Your task to perform on an android device: Look up the best rated pressure washer on Home Depot. Image 0: 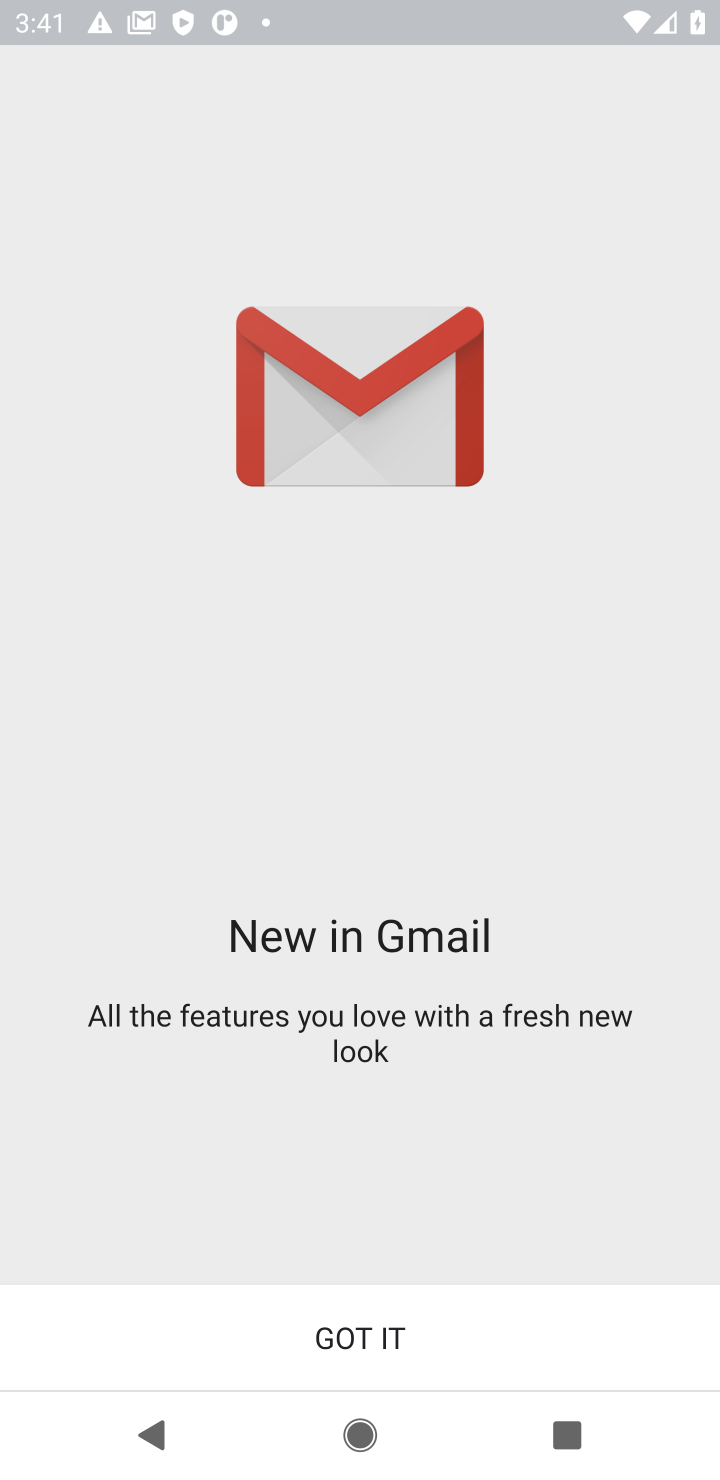
Step 0: press home button
Your task to perform on an android device: Look up the best rated pressure washer on Home Depot. Image 1: 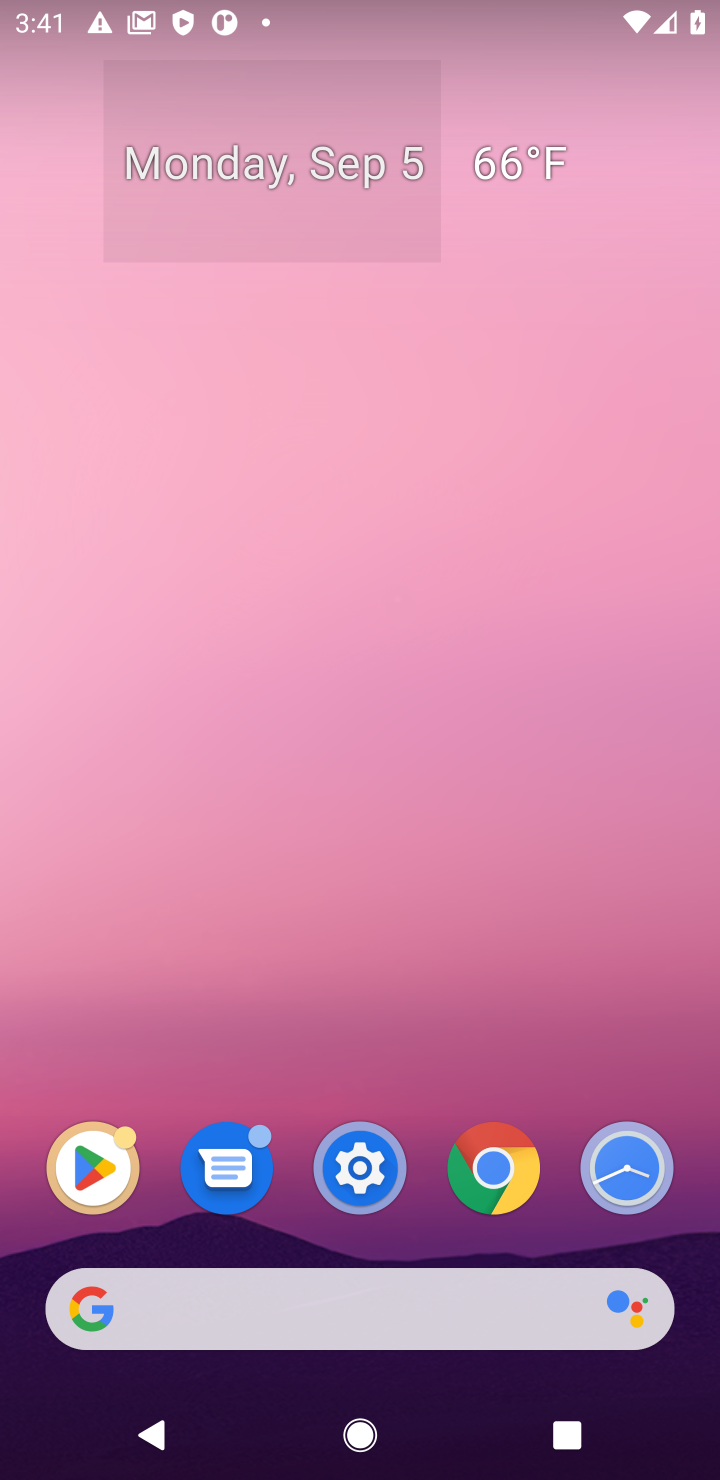
Step 1: click (182, 1303)
Your task to perform on an android device: Look up the best rated pressure washer on Home Depot. Image 2: 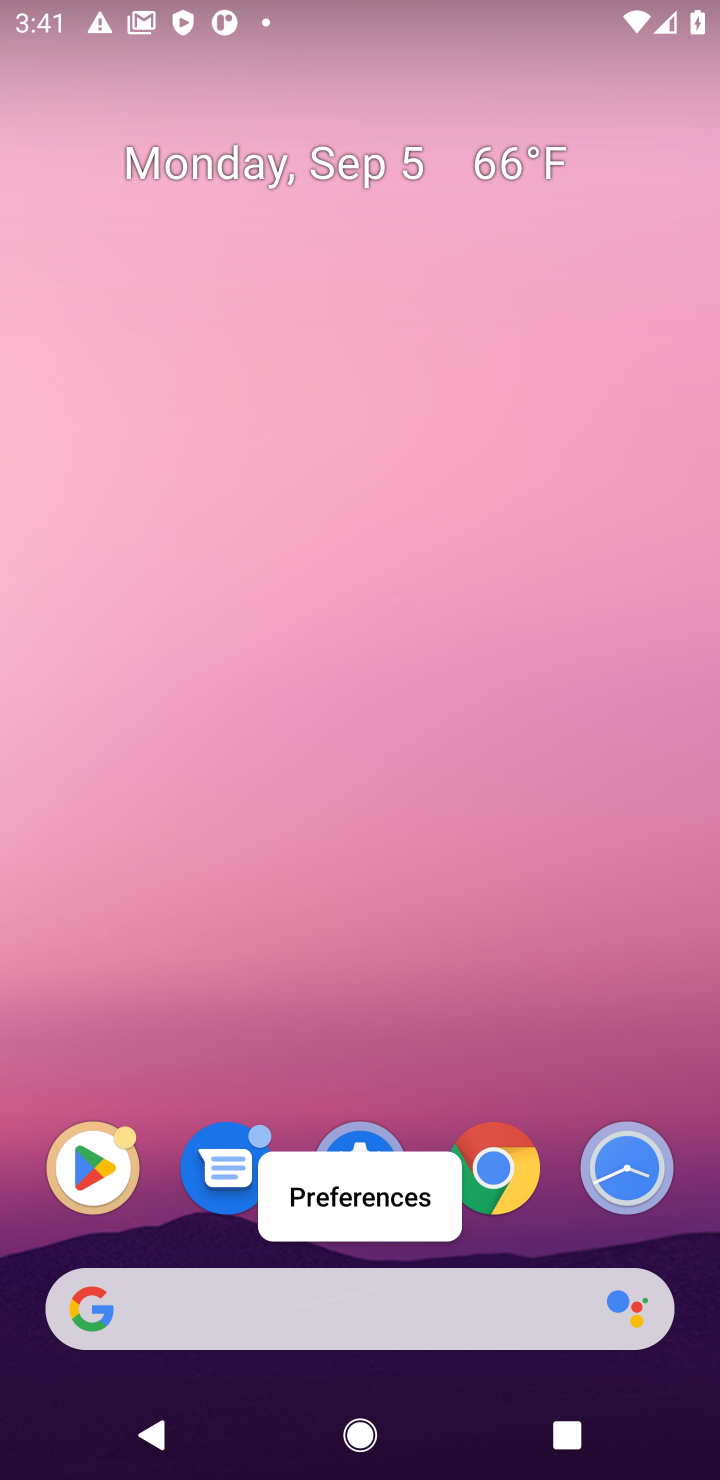
Step 2: click (182, 1303)
Your task to perform on an android device: Look up the best rated pressure washer on Home Depot. Image 3: 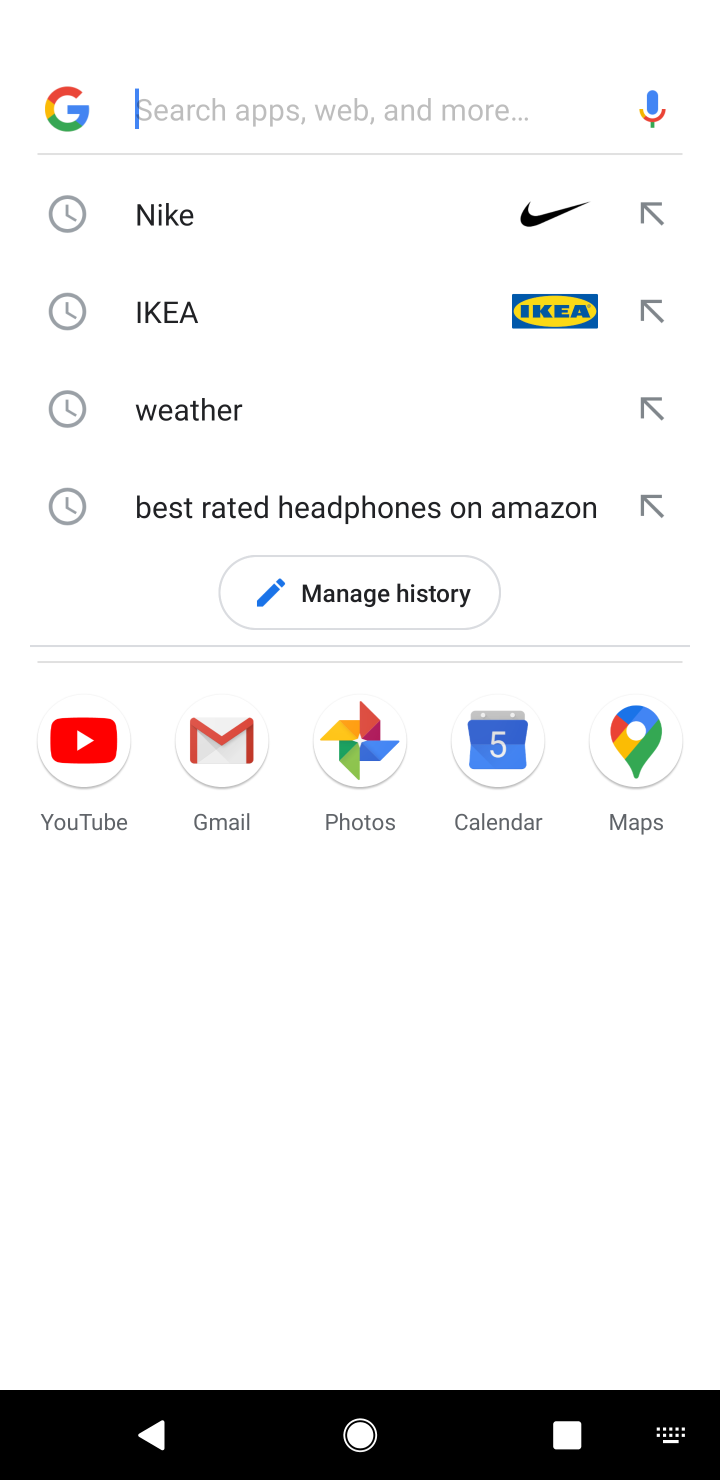
Step 3: type "home depot"
Your task to perform on an android device: Look up the best rated pressure washer on Home Depot. Image 4: 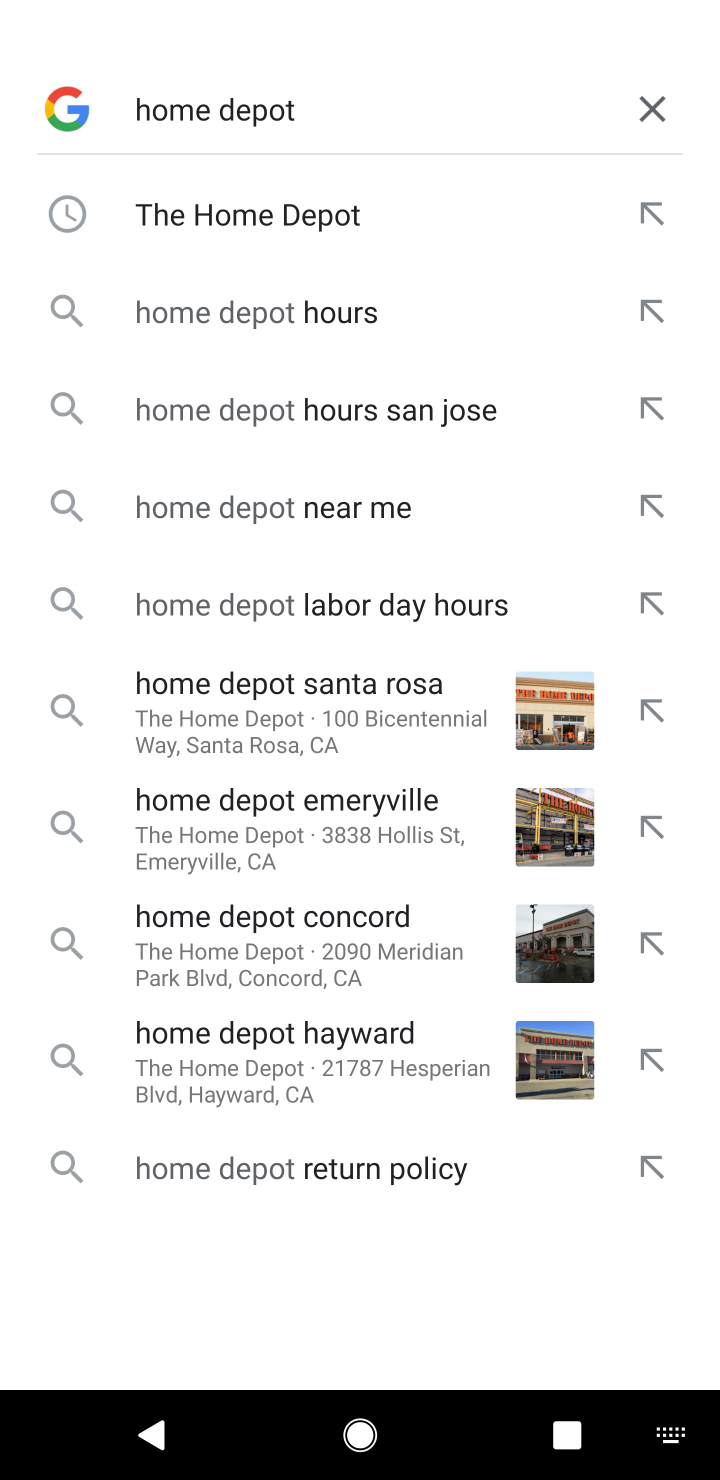
Step 4: click (306, 228)
Your task to perform on an android device: Look up the best rated pressure washer on Home Depot. Image 5: 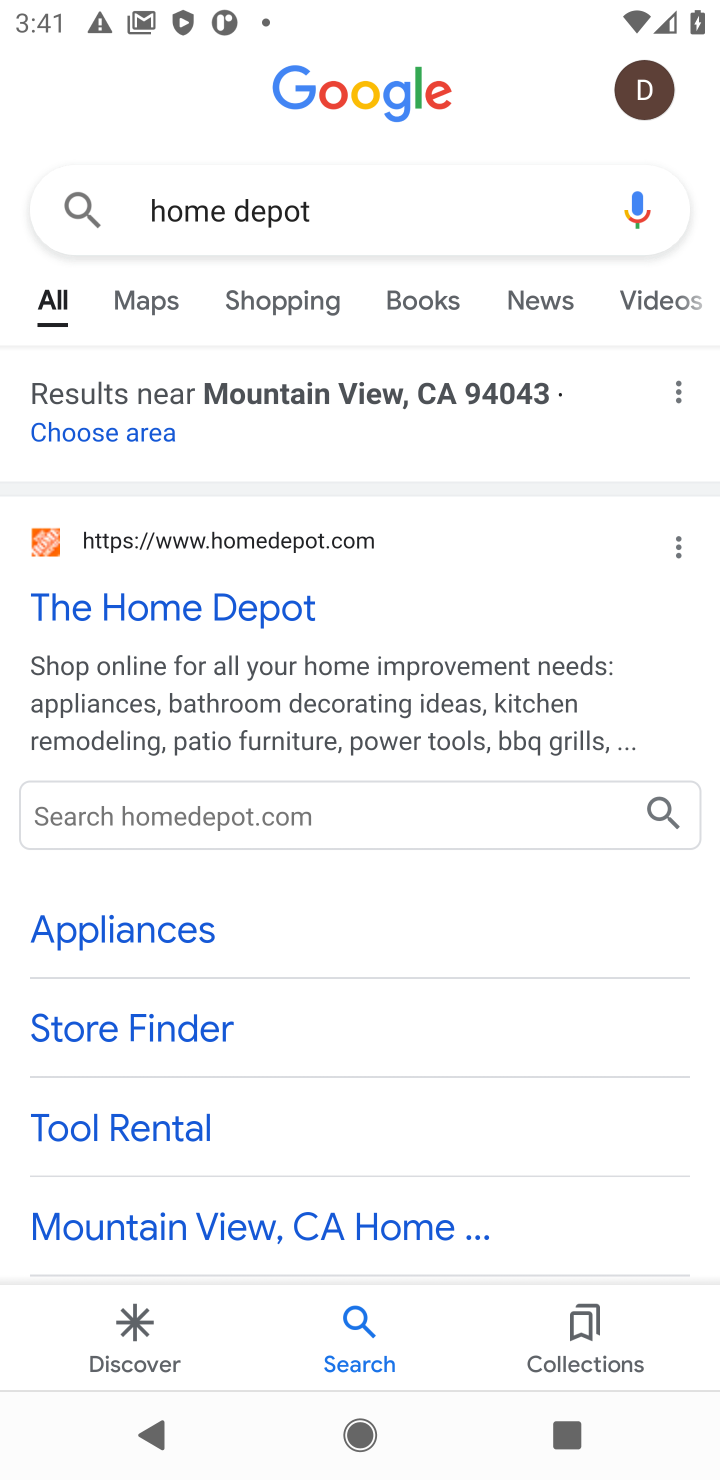
Step 5: click (185, 623)
Your task to perform on an android device: Look up the best rated pressure washer on Home Depot. Image 6: 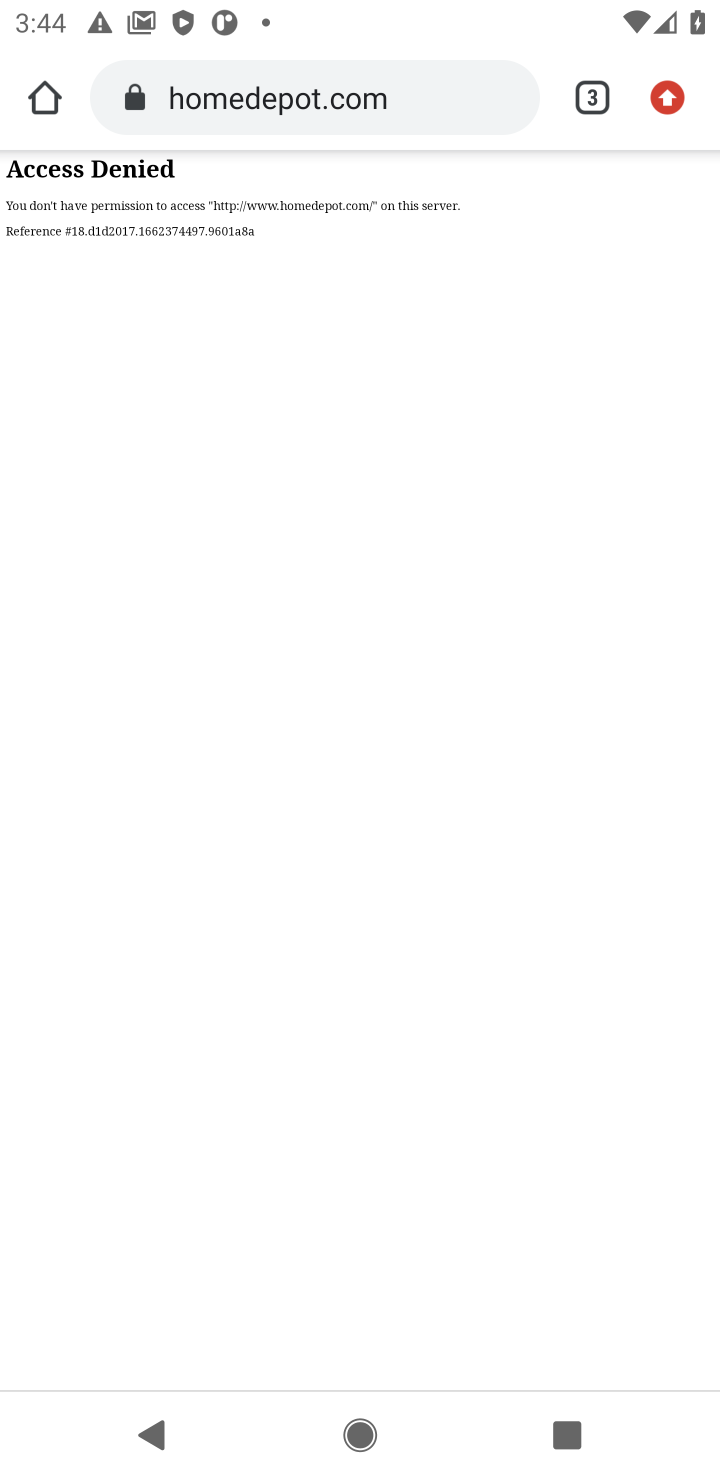
Step 6: task complete